Your task to perform on an android device: turn on airplane mode Image 0: 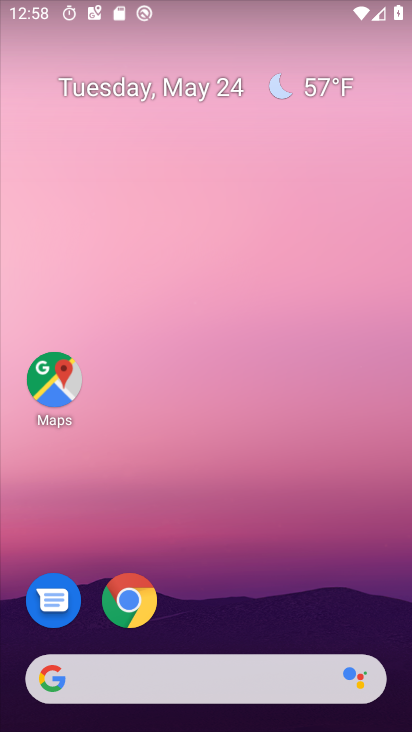
Step 0: drag from (299, 14) to (314, 508)
Your task to perform on an android device: turn on airplane mode Image 1: 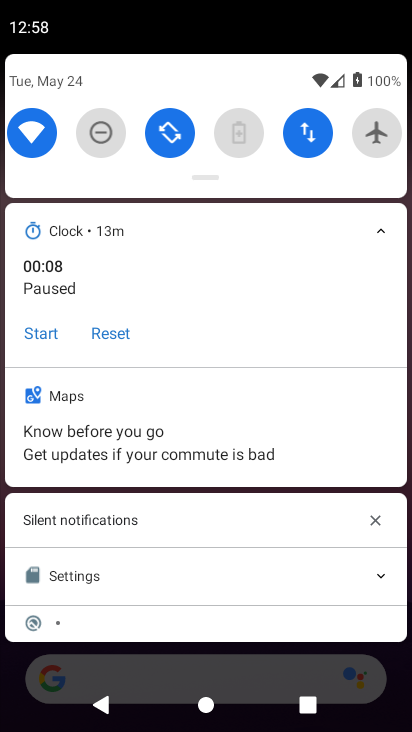
Step 1: click (366, 126)
Your task to perform on an android device: turn on airplane mode Image 2: 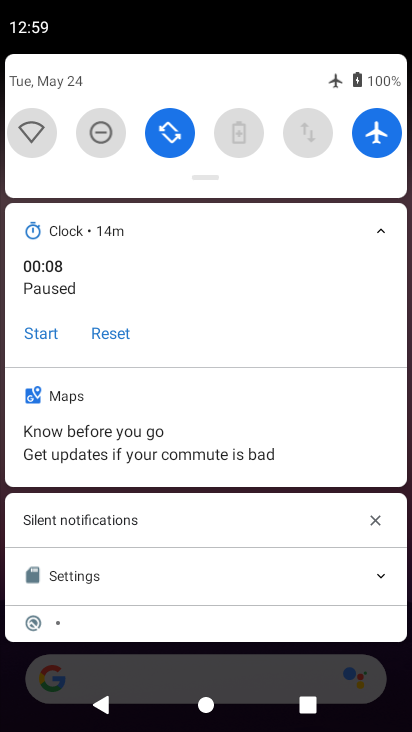
Step 2: task complete